Your task to perform on an android device: check google app version Image 0: 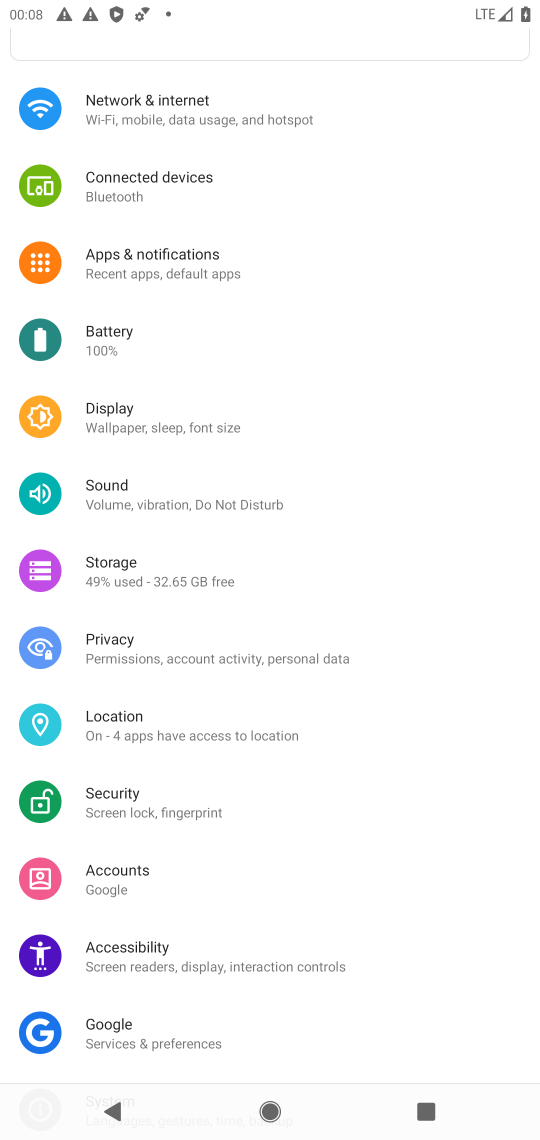
Step 0: press home button
Your task to perform on an android device: check google app version Image 1: 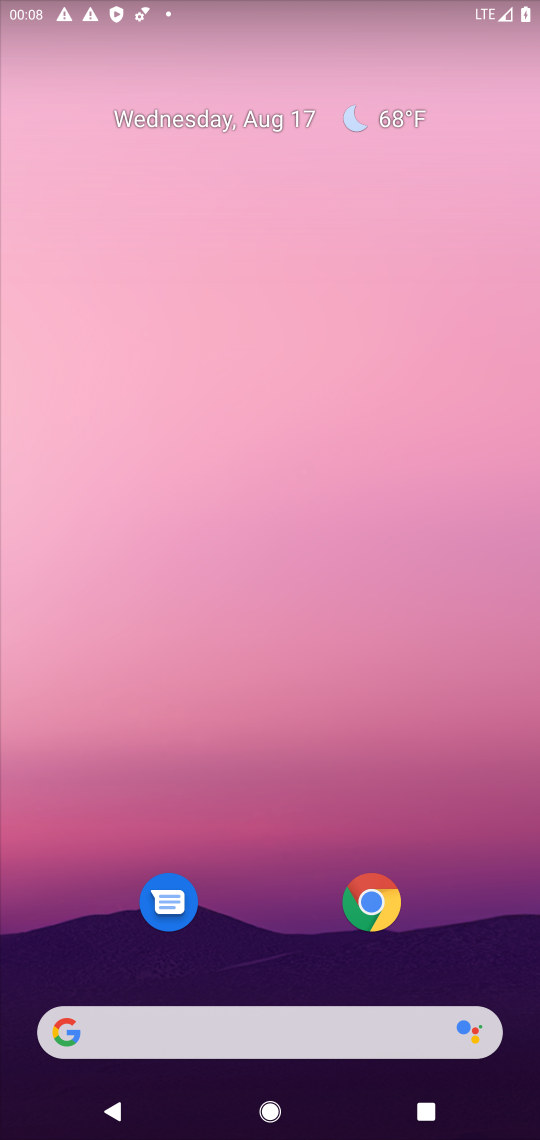
Step 1: click (65, 1020)
Your task to perform on an android device: check google app version Image 2: 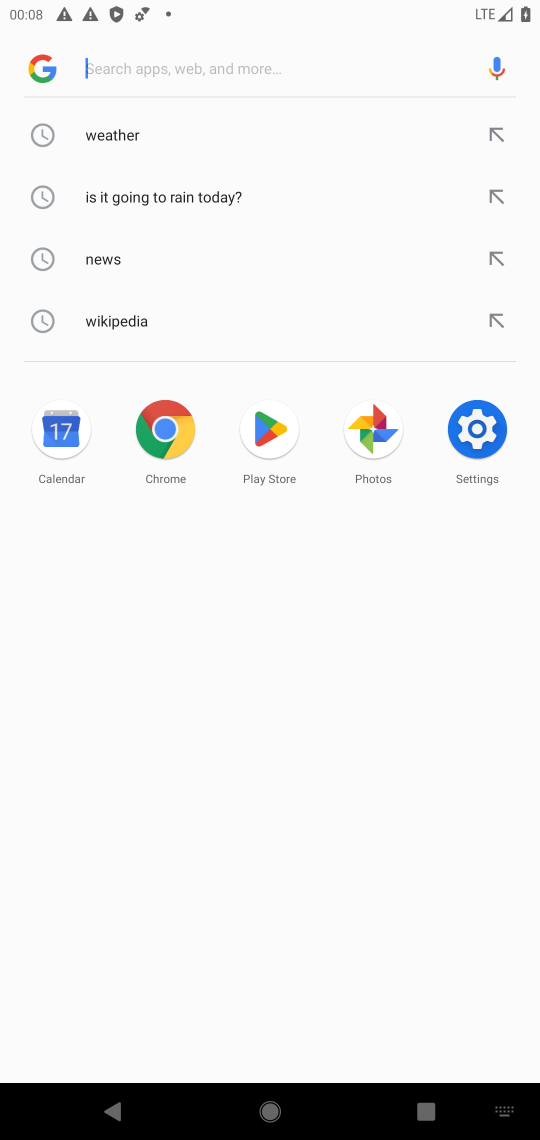
Step 2: click (44, 62)
Your task to perform on an android device: check google app version Image 3: 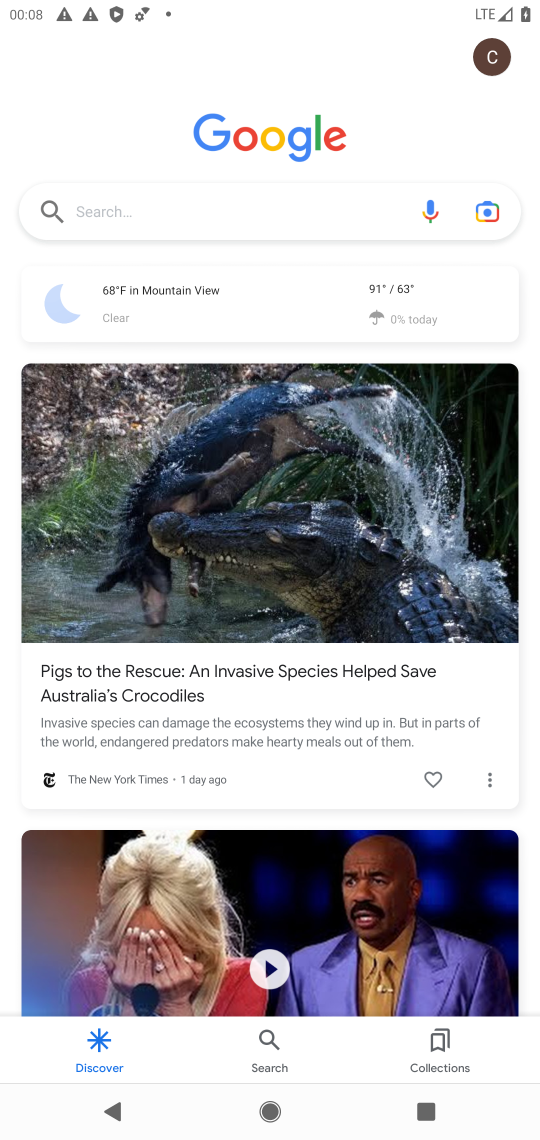
Step 3: click (493, 54)
Your task to perform on an android device: check google app version Image 4: 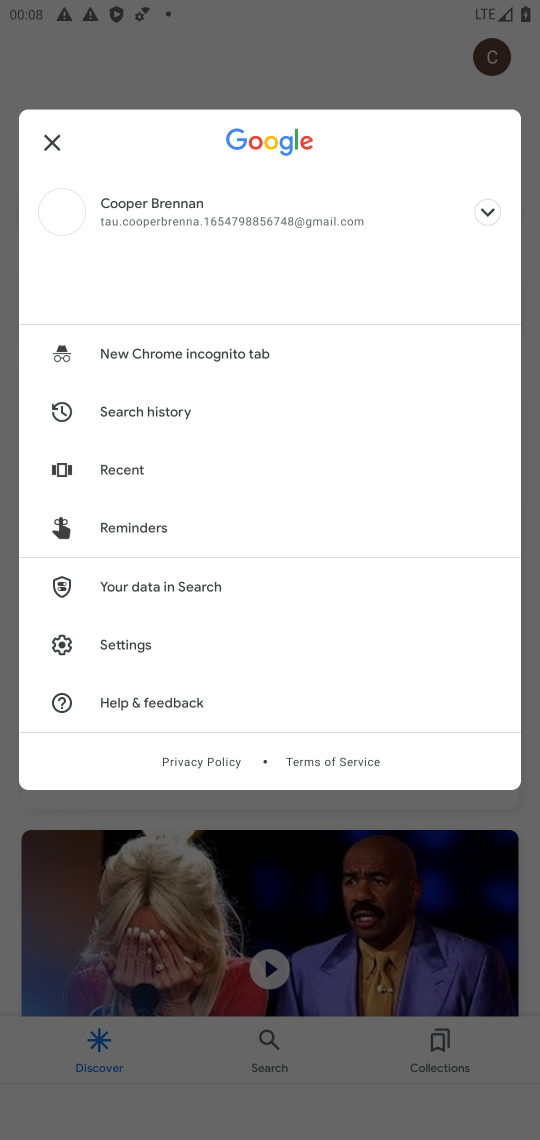
Step 4: click (481, 62)
Your task to perform on an android device: check google app version Image 5: 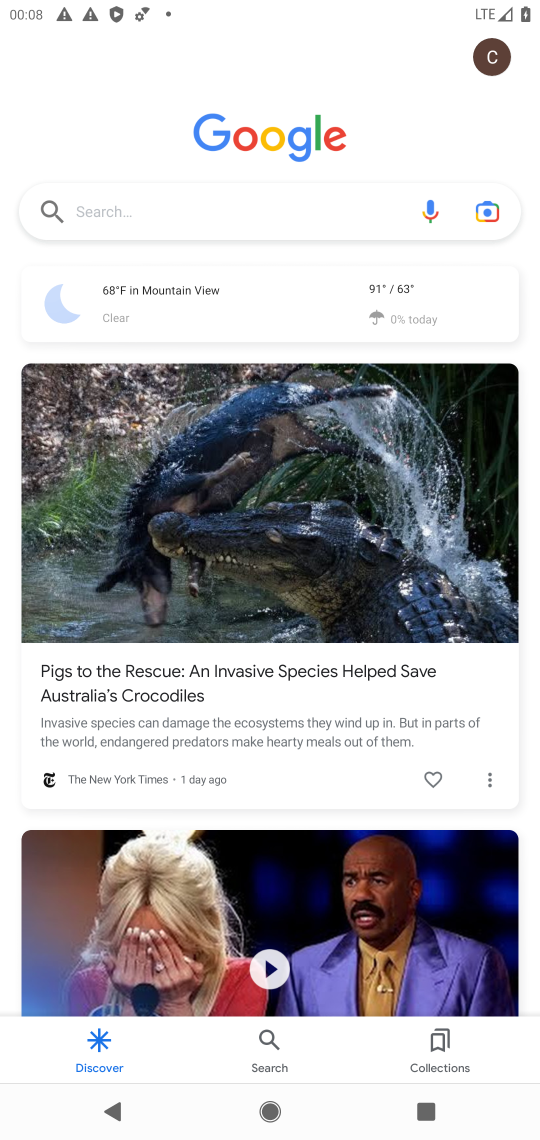
Step 5: drag from (143, 650) to (166, 1108)
Your task to perform on an android device: check google app version Image 6: 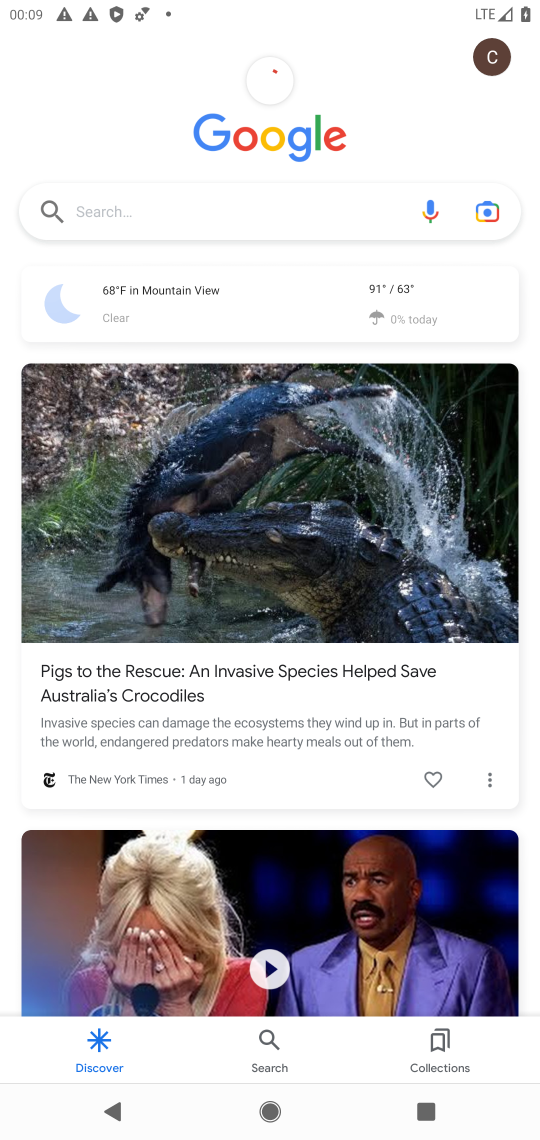
Step 6: click (490, 60)
Your task to perform on an android device: check google app version Image 7: 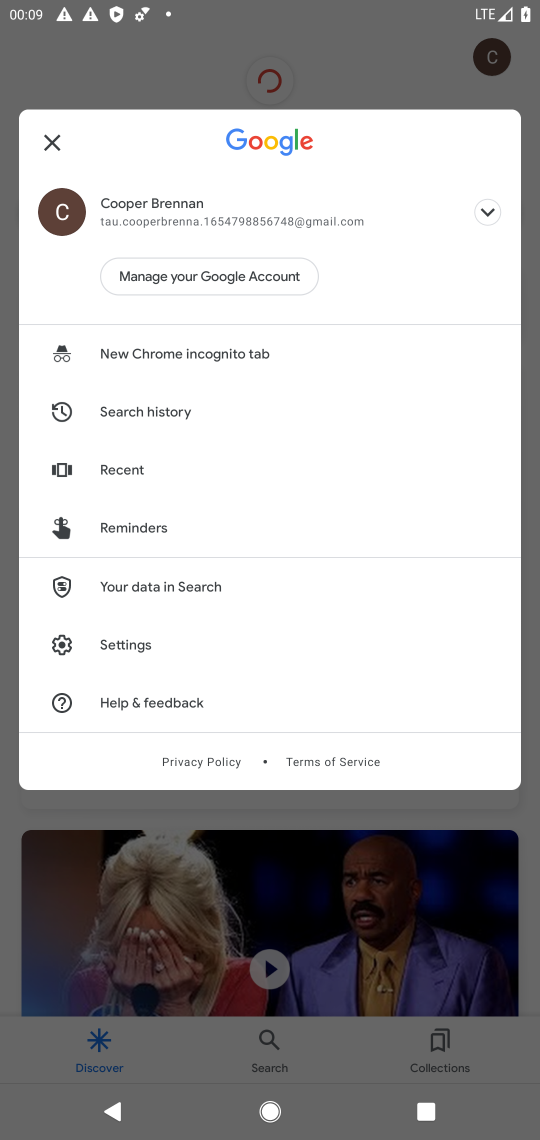
Step 7: click (122, 644)
Your task to perform on an android device: check google app version Image 8: 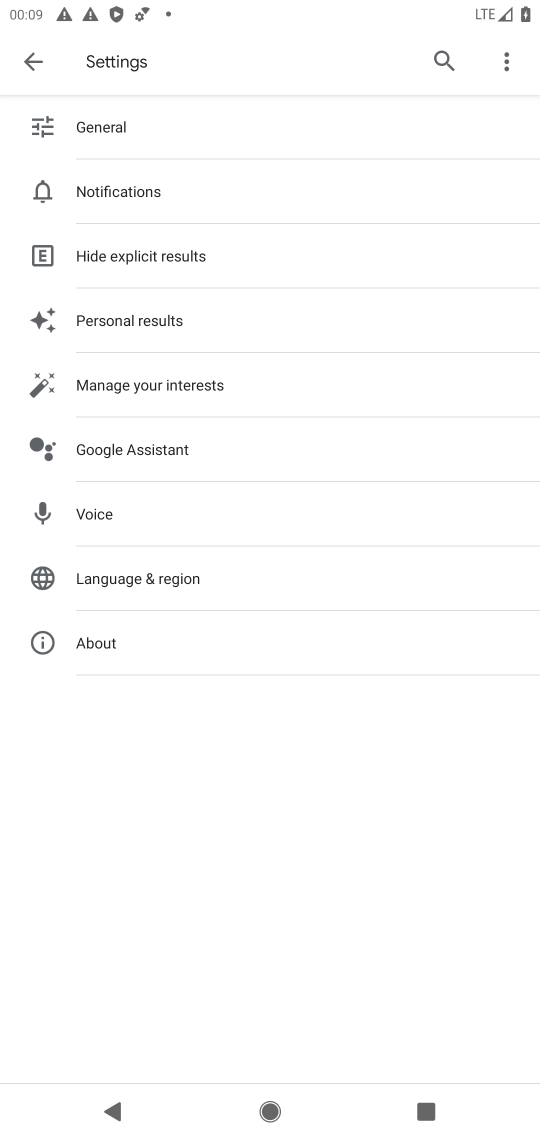
Step 8: click (119, 641)
Your task to perform on an android device: check google app version Image 9: 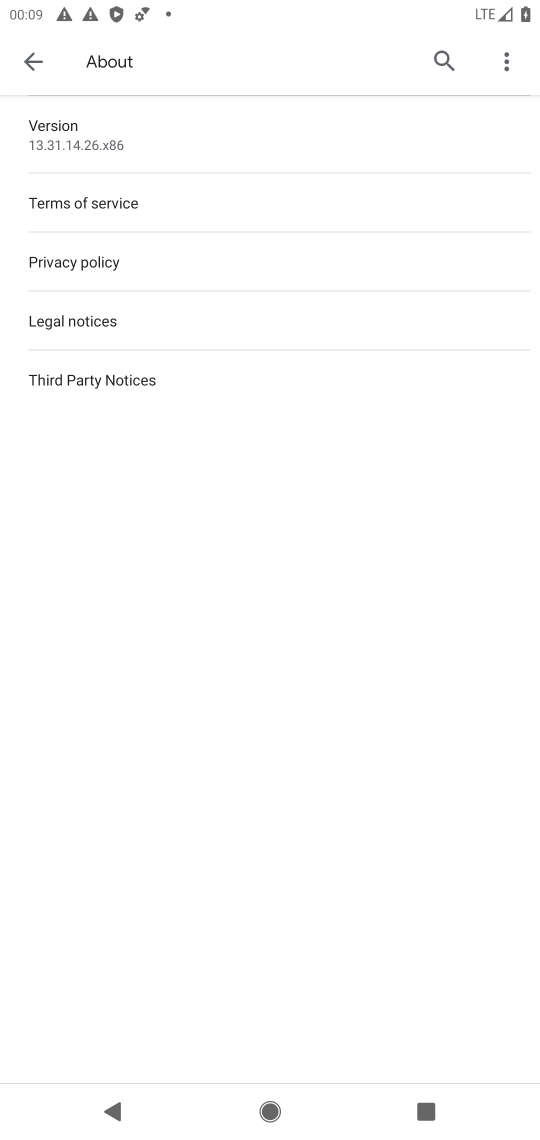
Step 9: task complete